Your task to perform on an android device: turn off notifications in google photos Image 0: 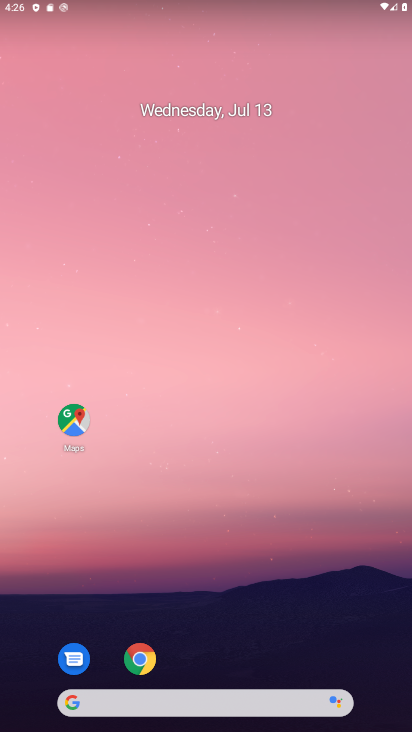
Step 0: drag from (266, 609) to (284, 5)
Your task to perform on an android device: turn off notifications in google photos Image 1: 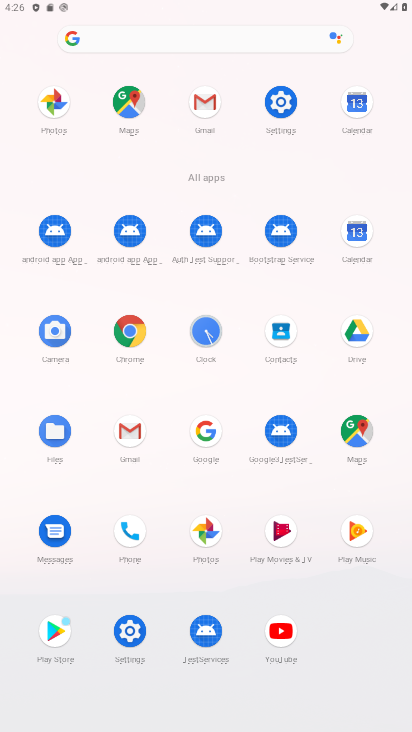
Step 1: click (212, 527)
Your task to perform on an android device: turn off notifications in google photos Image 2: 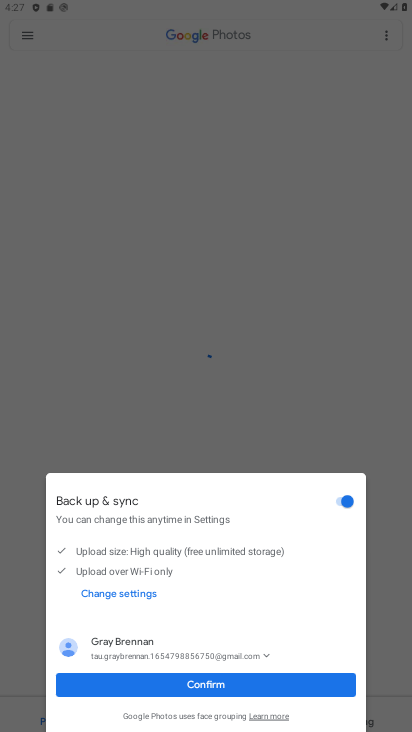
Step 2: click (254, 679)
Your task to perform on an android device: turn off notifications in google photos Image 3: 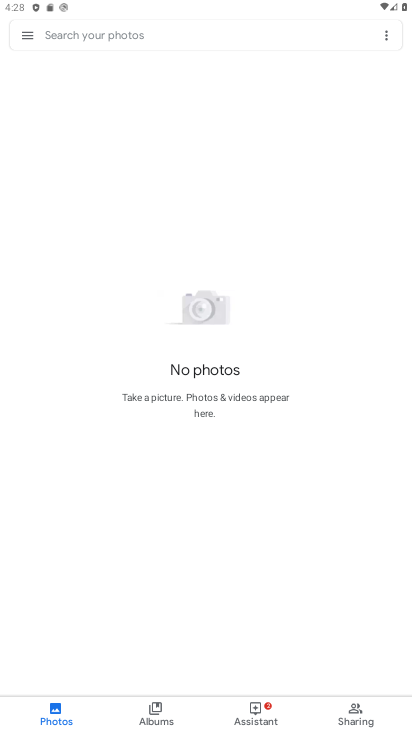
Step 3: click (33, 41)
Your task to perform on an android device: turn off notifications in google photos Image 4: 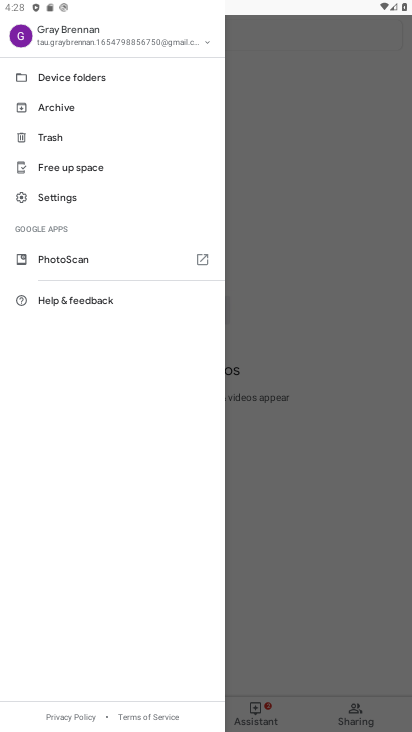
Step 4: click (63, 210)
Your task to perform on an android device: turn off notifications in google photos Image 5: 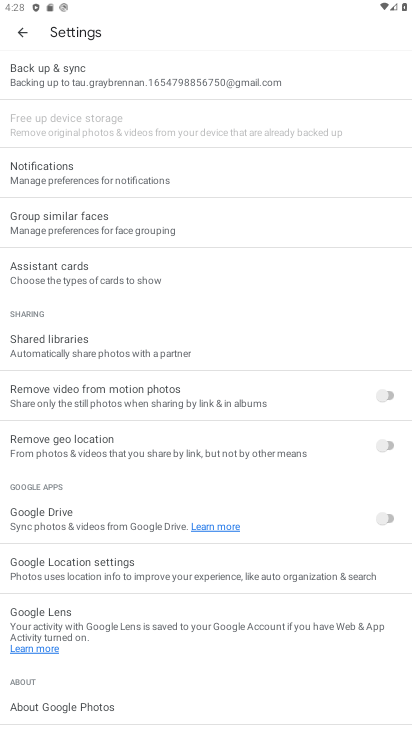
Step 5: click (85, 182)
Your task to perform on an android device: turn off notifications in google photos Image 6: 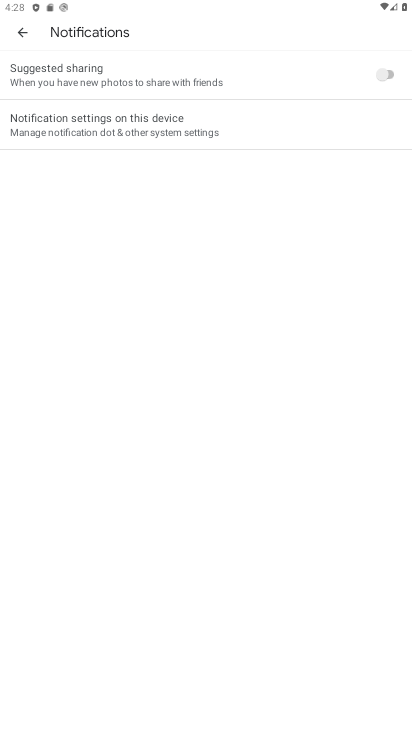
Step 6: click (156, 124)
Your task to perform on an android device: turn off notifications in google photos Image 7: 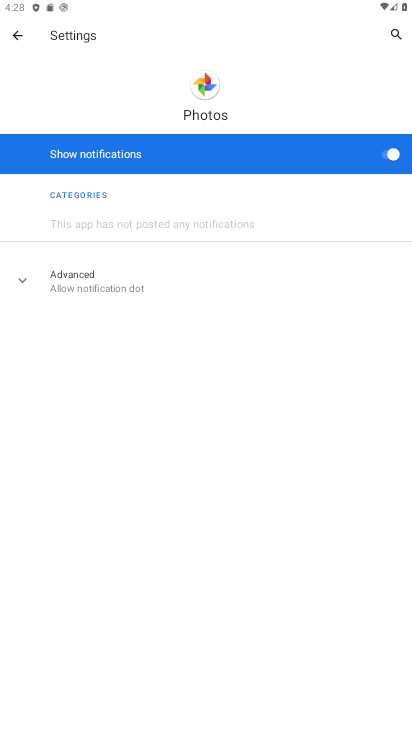
Step 7: click (389, 162)
Your task to perform on an android device: turn off notifications in google photos Image 8: 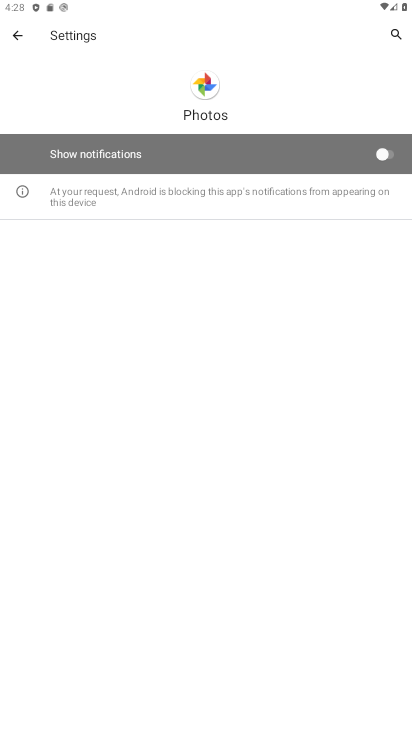
Step 8: task complete